Your task to perform on an android device: install app "Adobe Express: Graphic Design" Image 0: 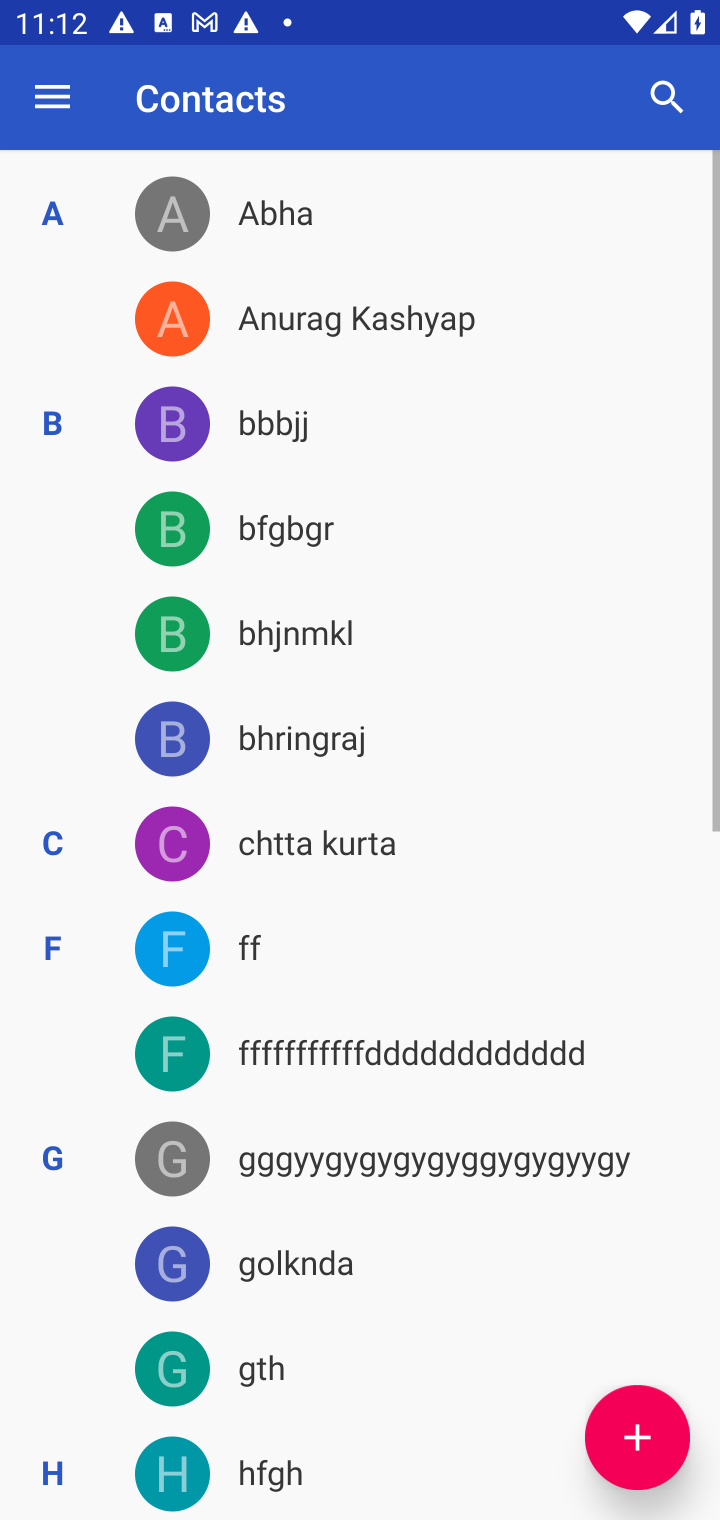
Step 0: press home button
Your task to perform on an android device: install app "Adobe Express: Graphic Design" Image 1: 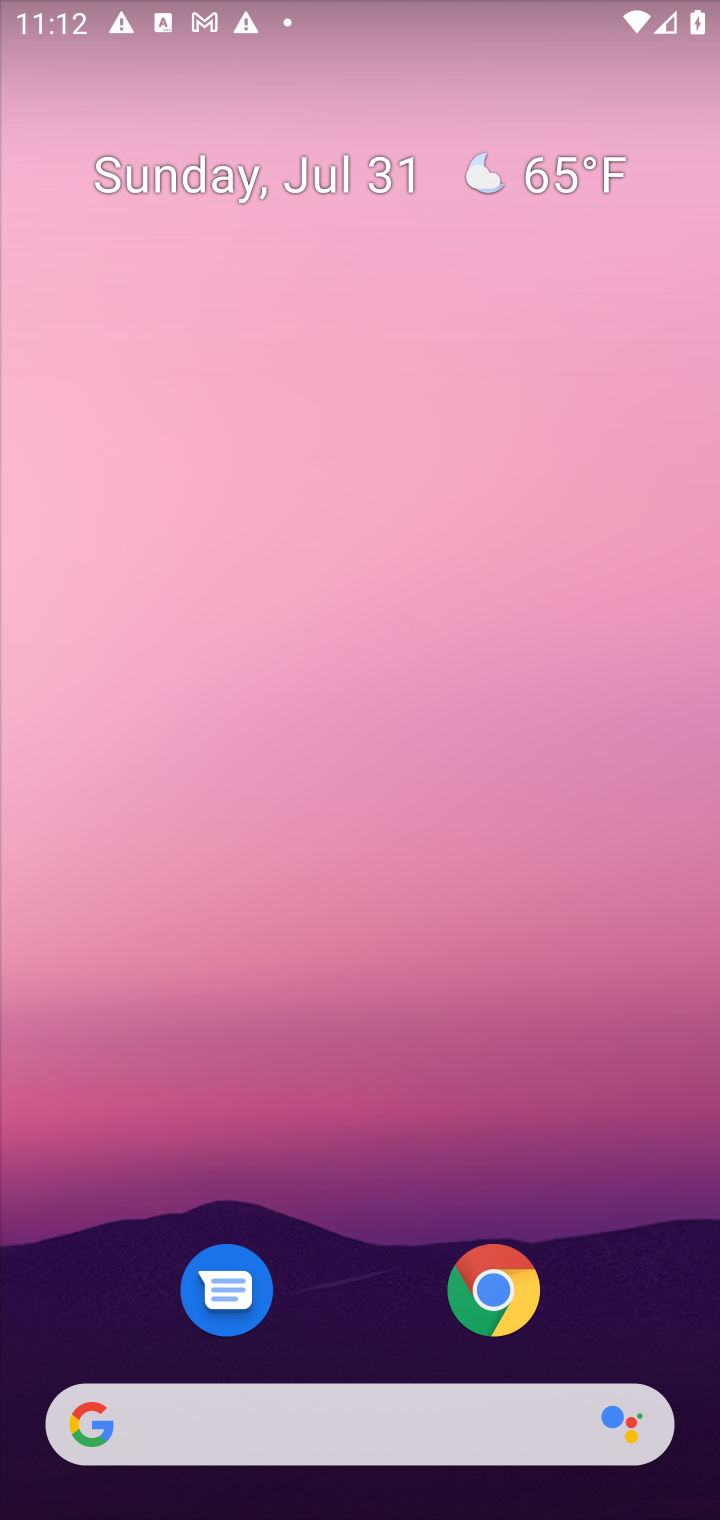
Step 1: drag from (610, 1070) to (550, 109)
Your task to perform on an android device: install app "Adobe Express: Graphic Design" Image 2: 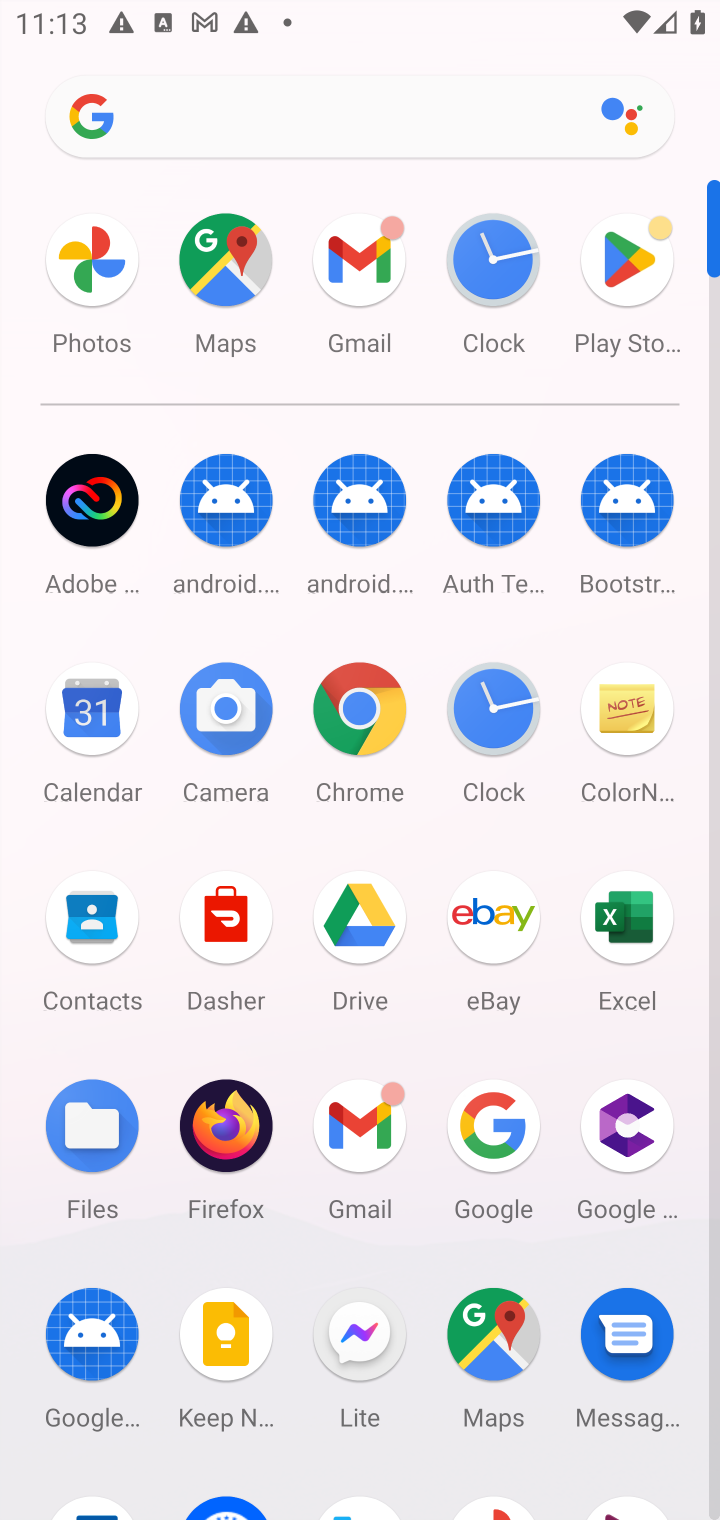
Step 2: click (627, 272)
Your task to perform on an android device: install app "Adobe Express: Graphic Design" Image 3: 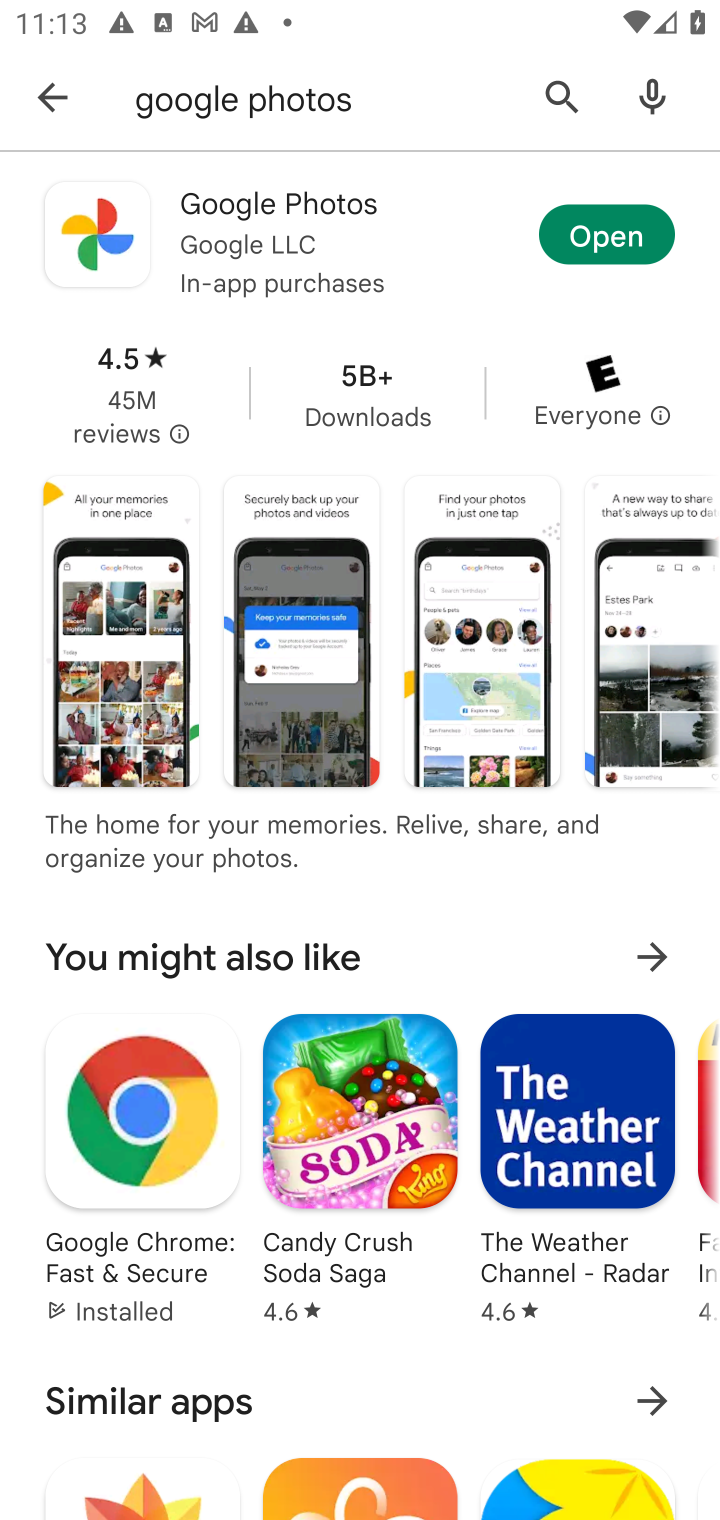
Step 3: click (541, 96)
Your task to perform on an android device: install app "Adobe Express: Graphic Design" Image 4: 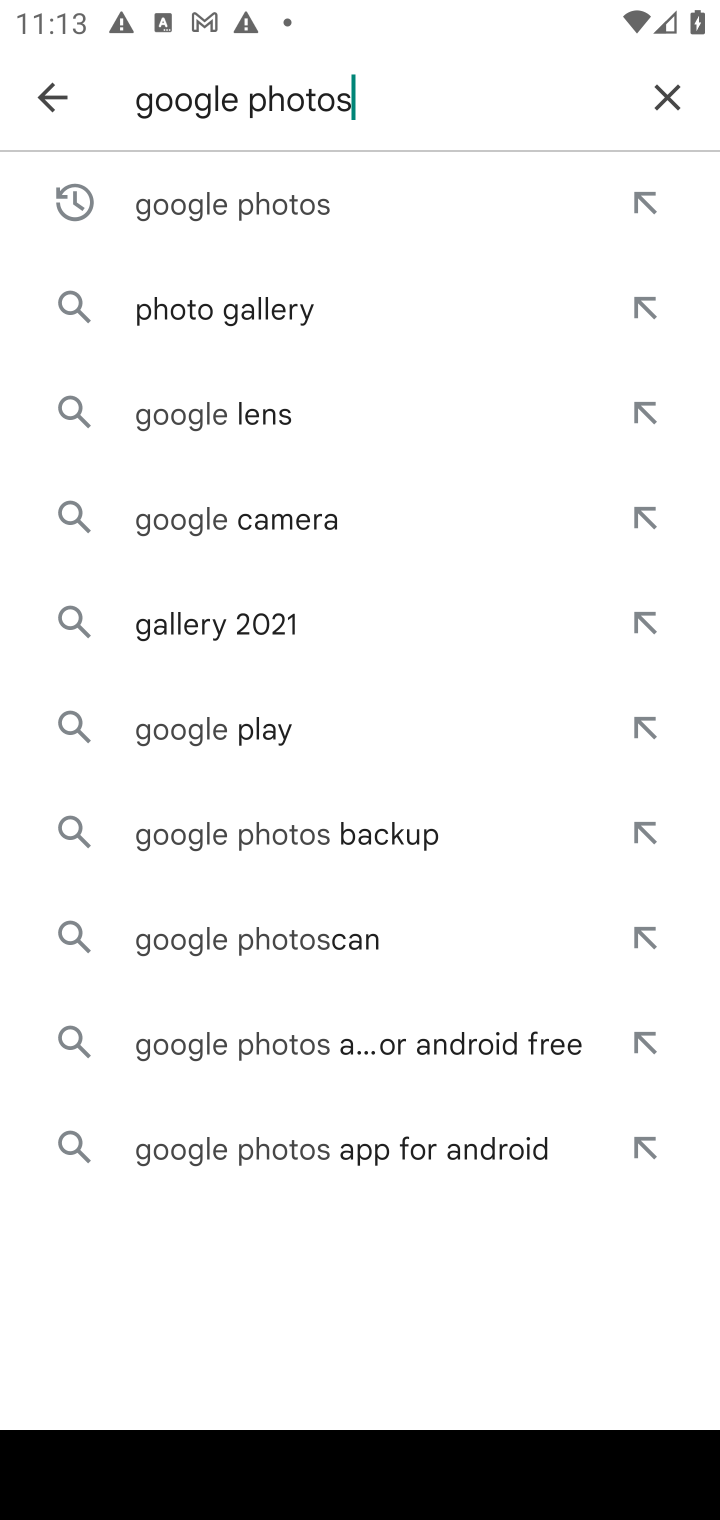
Step 4: click (658, 88)
Your task to perform on an android device: install app "Adobe Express: Graphic Design" Image 5: 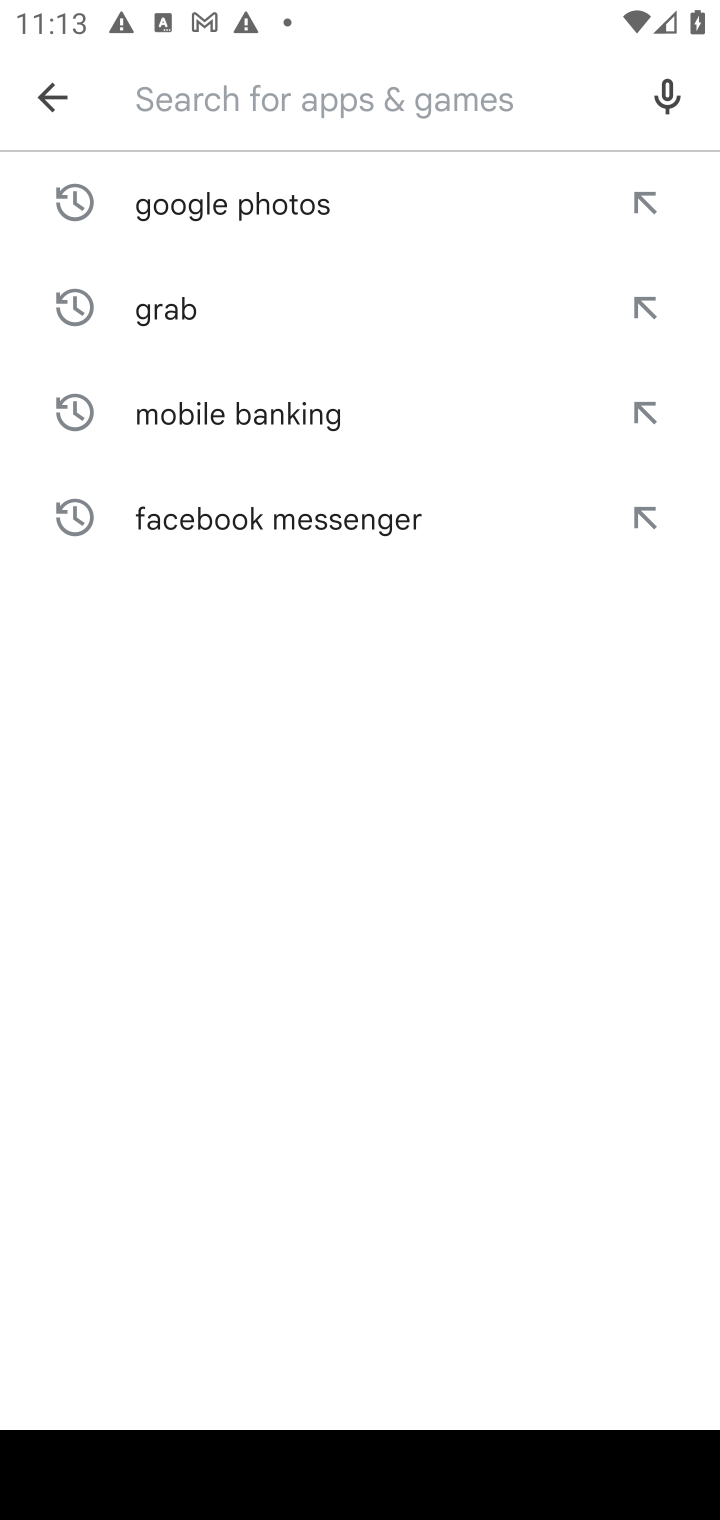
Step 5: type "Adobe Express: Graphic Design"
Your task to perform on an android device: install app "Adobe Express: Graphic Design" Image 6: 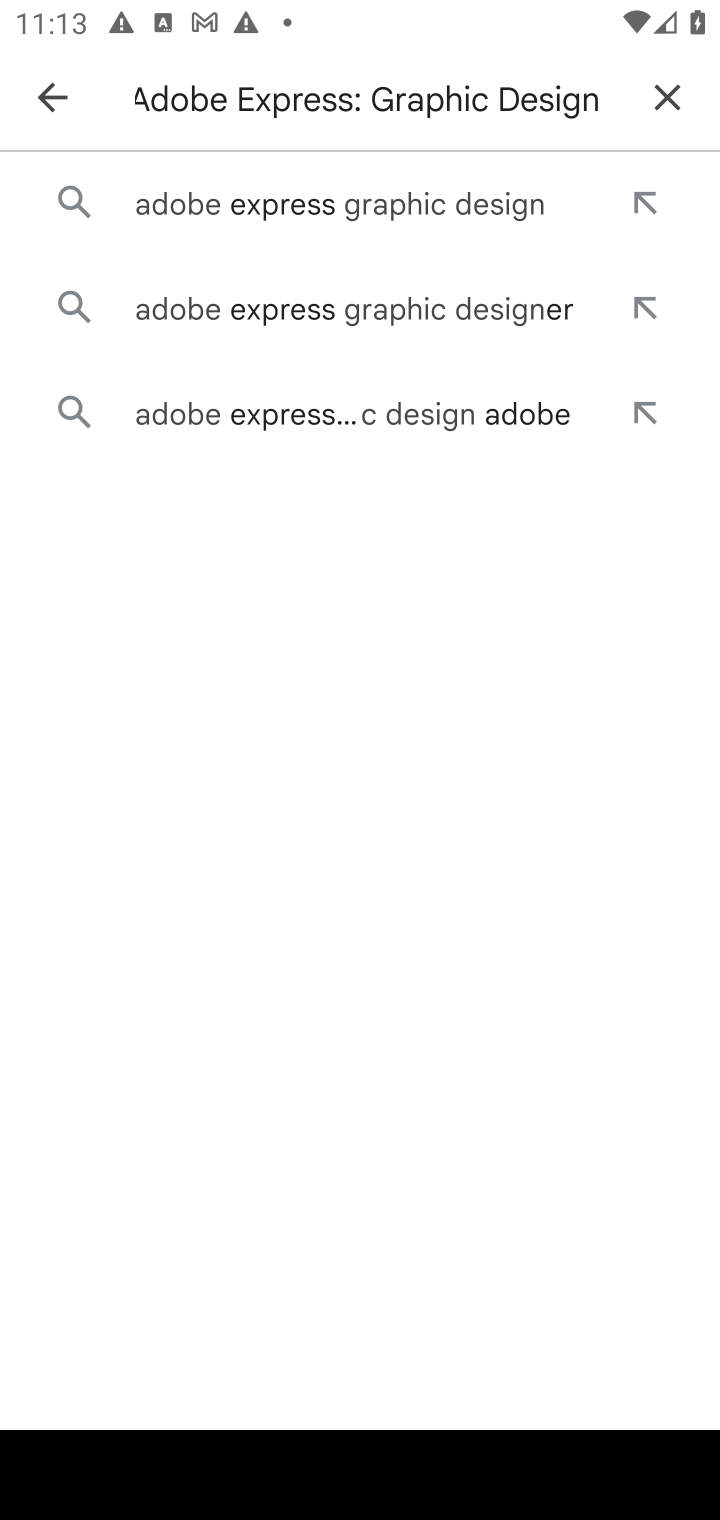
Step 6: type "\"
Your task to perform on an android device: install app "Adobe Express: Graphic Design" Image 7: 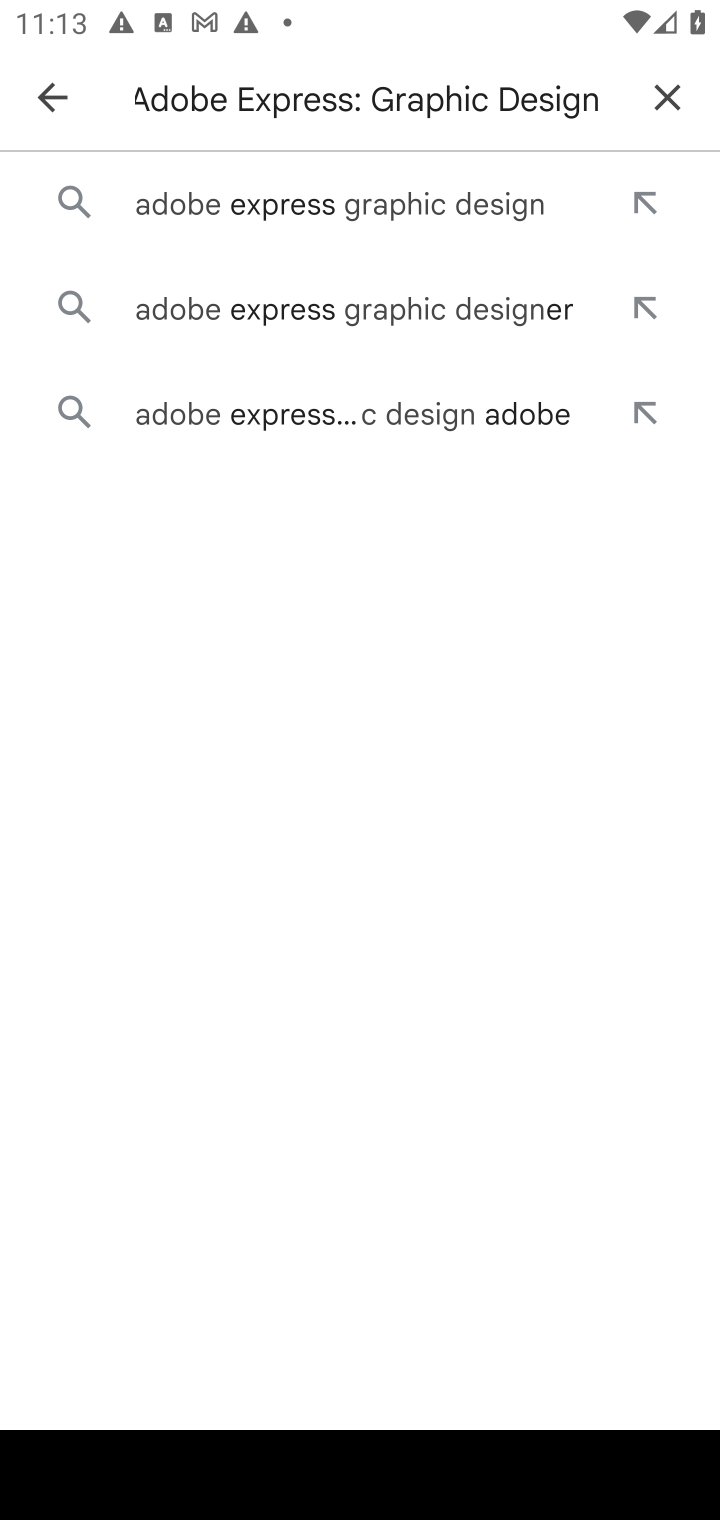
Step 7: click (420, 217)
Your task to perform on an android device: install app "Adobe Express: Graphic Design" Image 8: 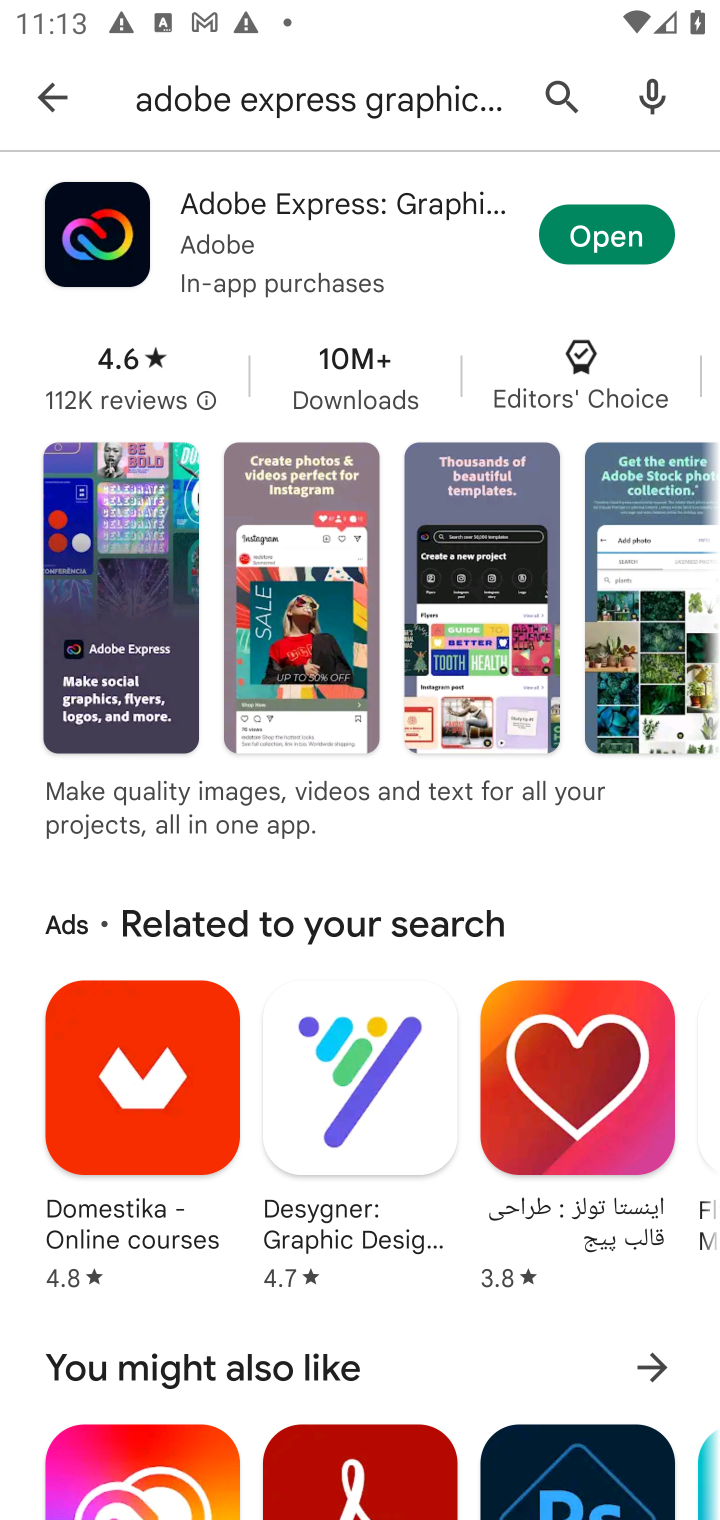
Step 8: task complete